Your task to perform on an android device: set default search engine in the chrome app Image 0: 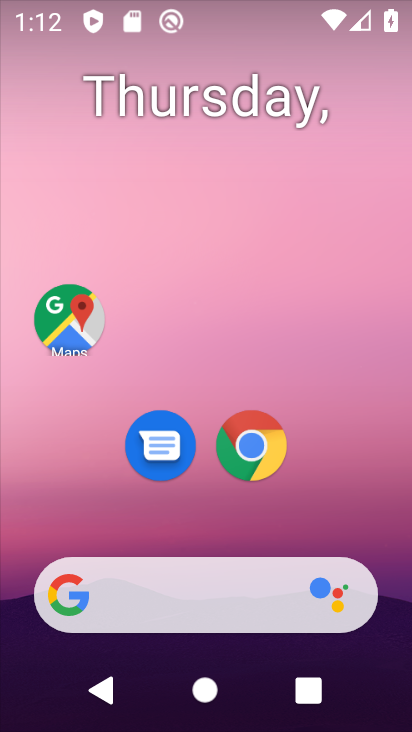
Step 0: click (254, 446)
Your task to perform on an android device: set default search engine in the chrome app Image 1: 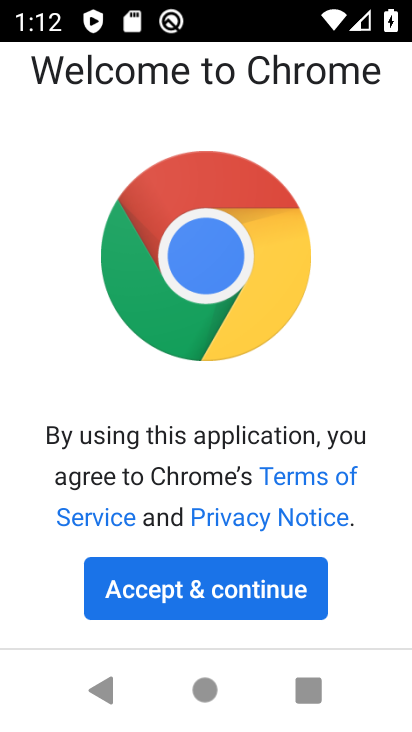
Step 1: click (221, 578)
Your task to perform on an android device: set default search engine in the chrome app Image 2: 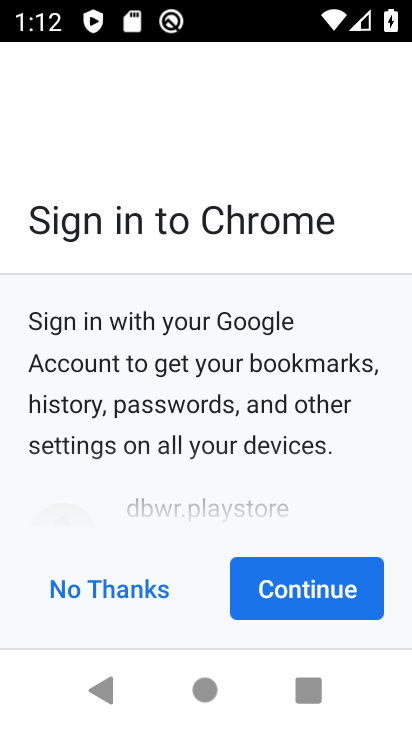
Step 2: click (141, 581)
Your task to perform on an android device: set default search engine in the chrome app Image 3: 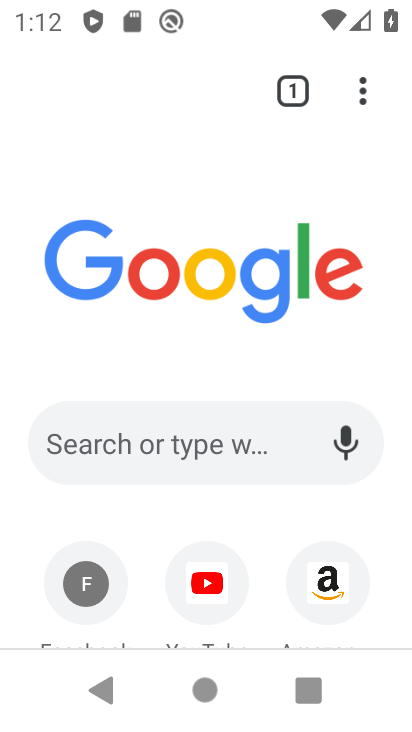
Step 3: click (363, 78)
Your task to perform on an android device: set default search engine in the chrome app Image 4: 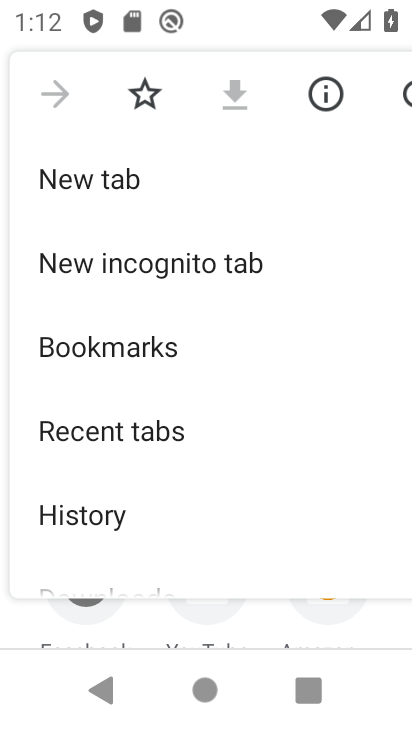
Step 4: drag from (75, 543) to (208, 140)
Your task to perform on an android device: set default search engine in the chrome app Image 5: 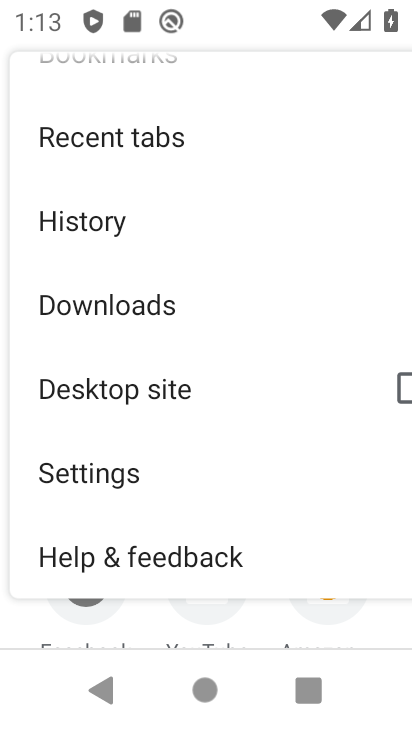
Step 5: click (99, 481)
Your task to perform on an android device: set default search engine in the chrome app Image 6: 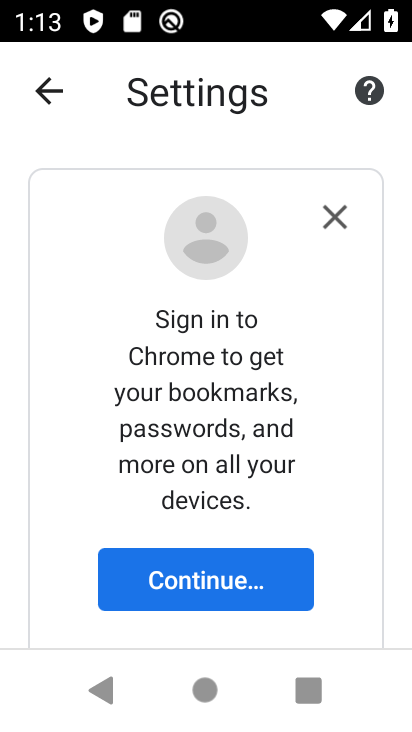
Step 6: click (328, 208)
Your task to perform on an android device: set default search engine in the chrome app Image 7: 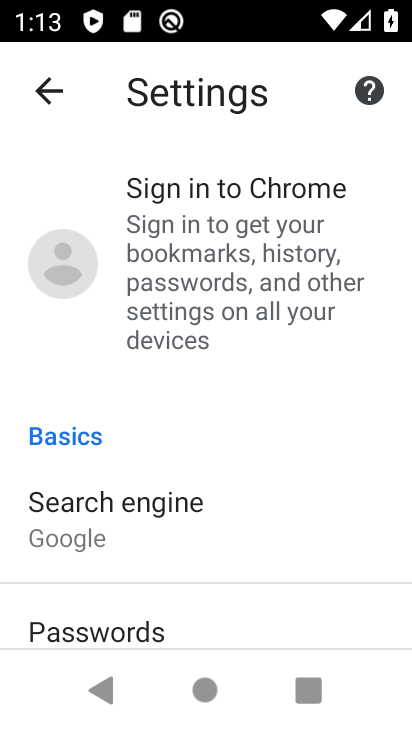
Step 7: click (52, 548)
Your task to perform on an android device: set default search engine in the chrome app Image 8: 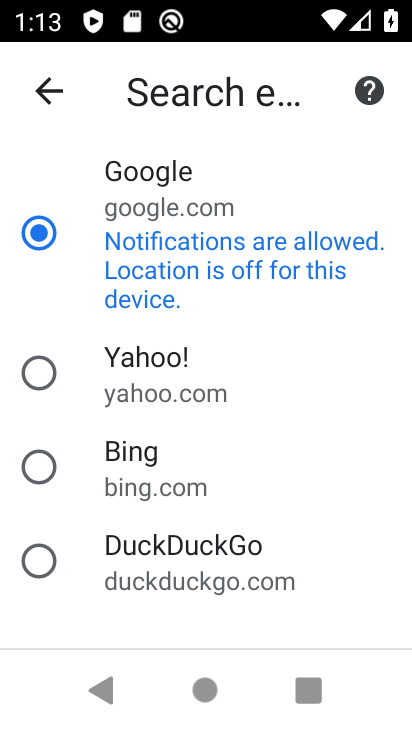
Step 8: task complete